Your task to perform on an android device: Show me the alarms in the clock app Image 0: 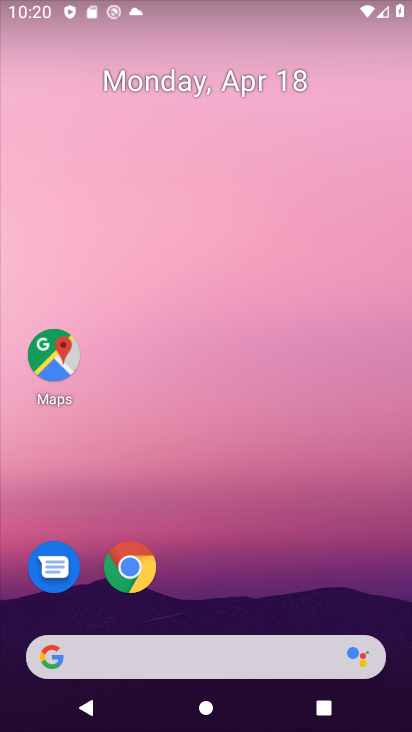
Step 0: drag from (193, 587) to (233, 154)
Your task to perform on an android device: Show me the alarms in the clock app Image 1: 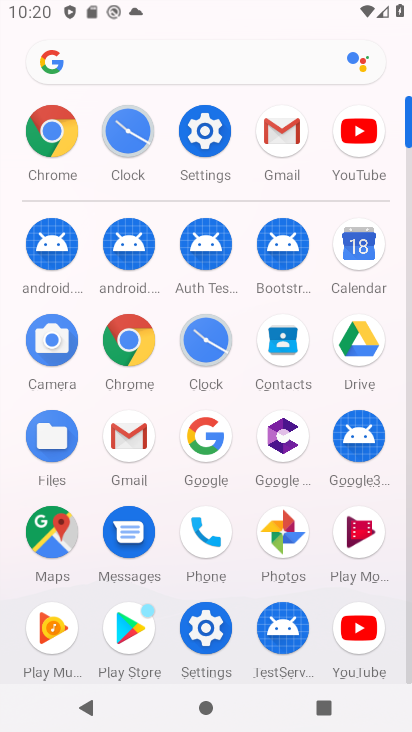
Step 1: click (212, 343)
Your task to perform on an android device: Show me the alarms in the clock app Image 2: 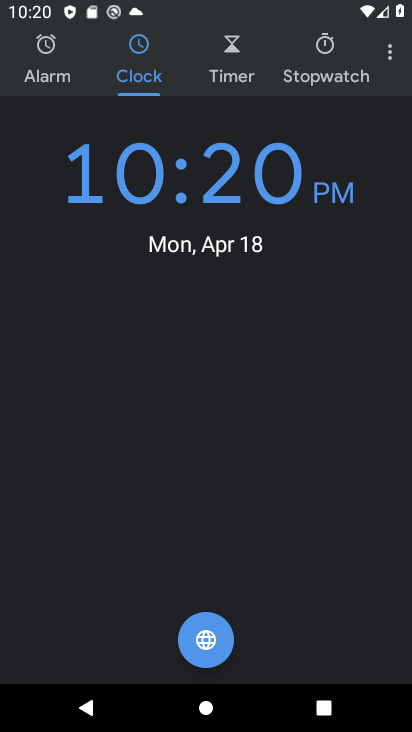
Step 2: click (62, 65)
Your task to perform on an android device: Show me the alarms in the clock app Image 3: 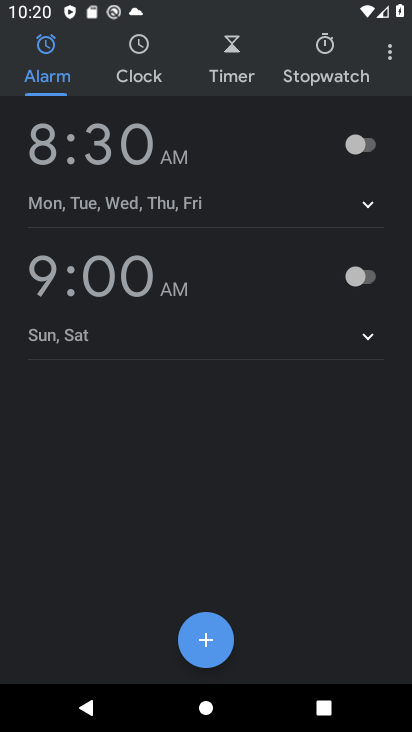
Step 3: task complete